Your task to perform on an android device: toggle pop-ups in chrome Image 0: 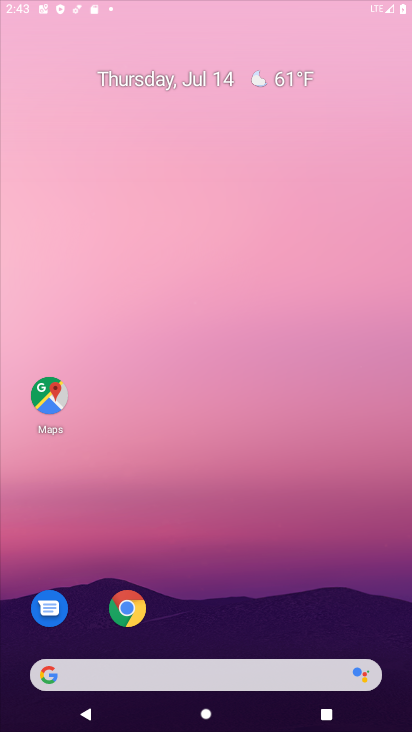
Step 0: click (266, 320)
Your task to perform on an android device: toggle pop-ups in chrome Image 1: 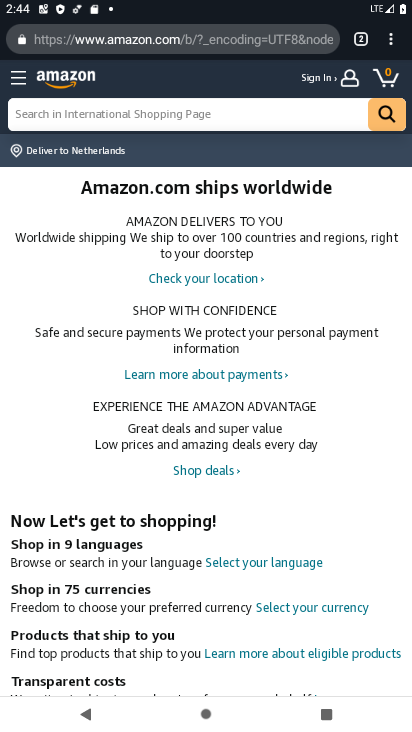
Step 1: press home button
Your task to perform on an android device: toggle pop-ups in chrome Image 2: 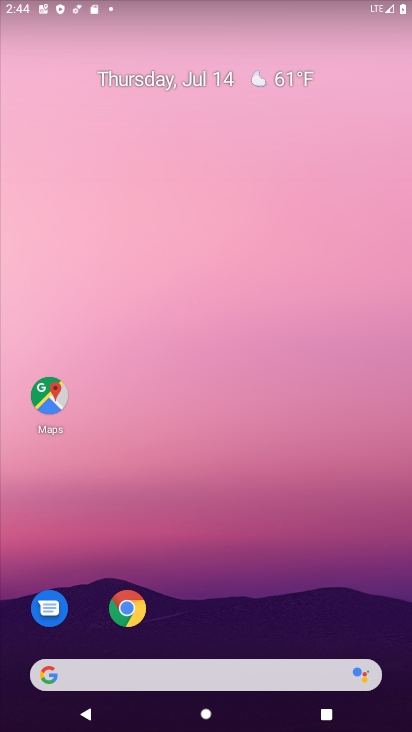
Step 2: drag from (164, 649) to (160, 181)
Your task to perform on an android device: toggle pop-ups in chrome Image 3: 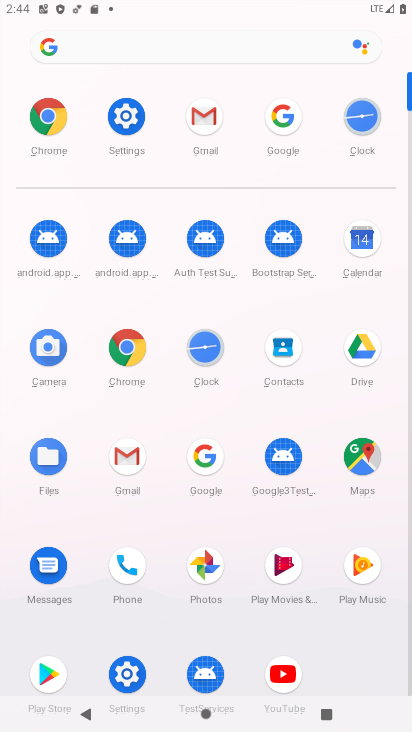
Step 3: click (127, 348)
Your task to perform on an android device: toggle pop-ups in chrome Image 4: 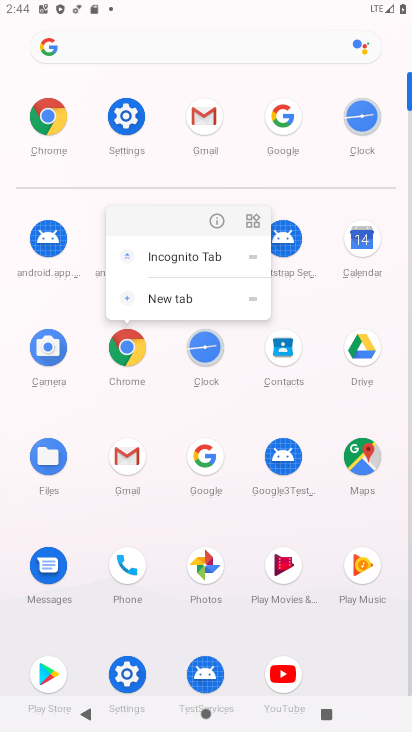
Step 4: click (127, 348)
Your task to perform on an android device: toggle pop-ups in chrome Image 5: 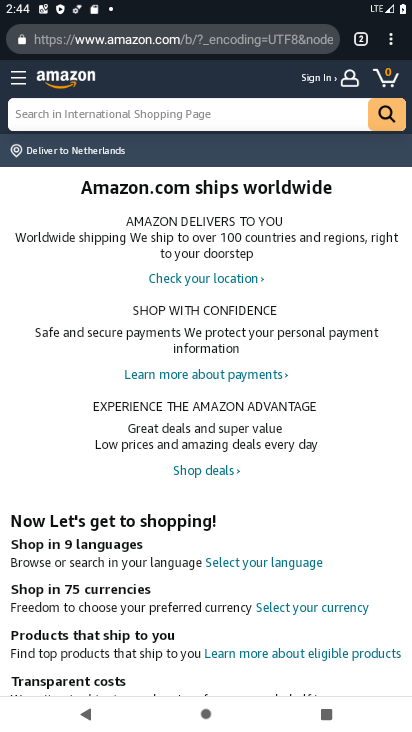
Step 5: click (388, 47)
Your task to perform on an android device: toggle pop-ups in chrome Image 6: 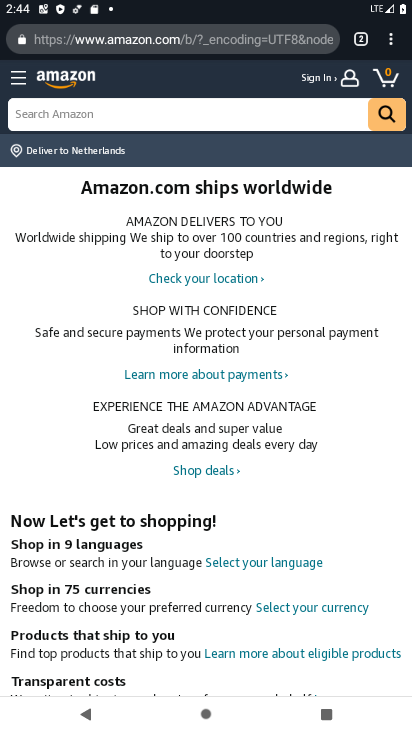
Step 6: click (388, 43)
Your task to perform on an android device: toggle pop-ups in chrome Image 7: 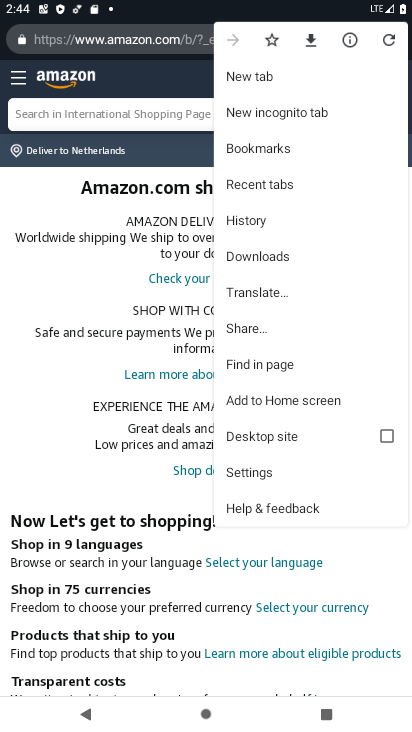
Step 7: click (258, 468)
Your task to perform on an android device: toggle pop-ups in chrome Image 8: 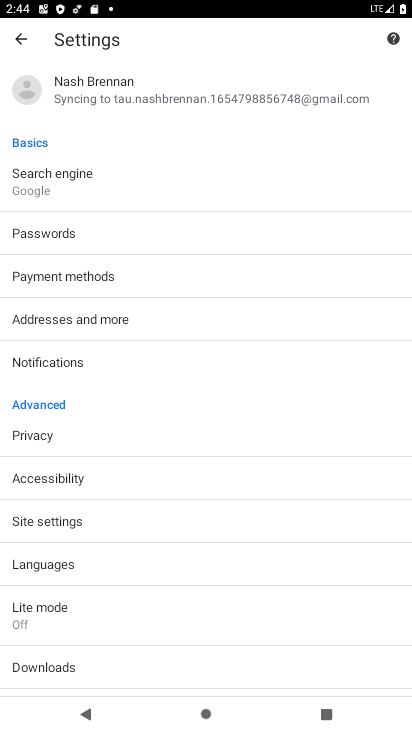
Step 8: drag from (83, 638) to (99, 244)
Your task to perform on an android device: toggle pop-ups in chrome Image 9: 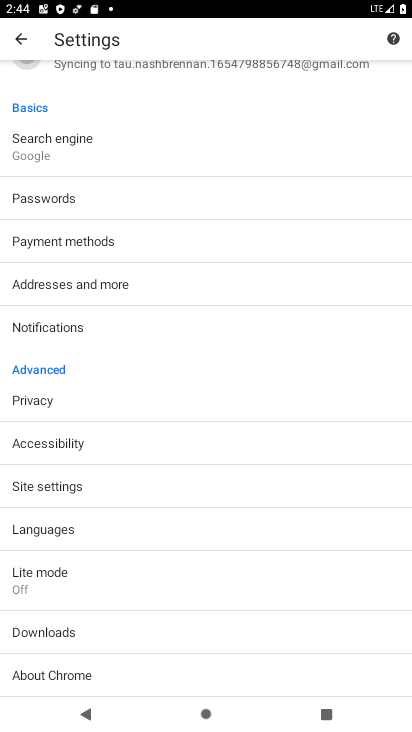
Step 9: click (36, 478)
Your task to perform on an android device: toggle pop-ups in chrome Image 10: 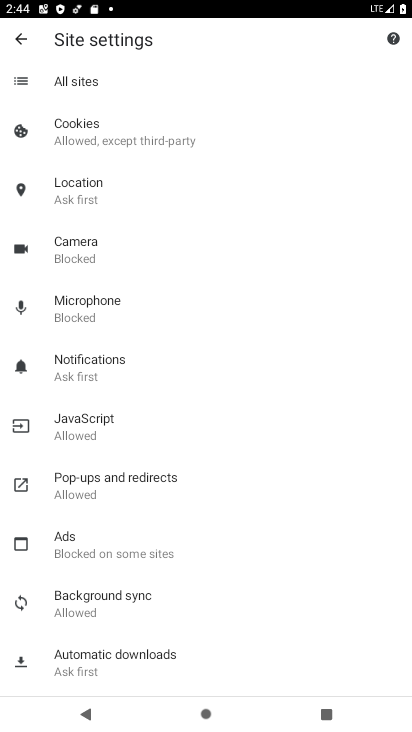
Step 10: click (121, 490)
Your task to perform on an android device: toggle pop-ups in chrome Image 11: 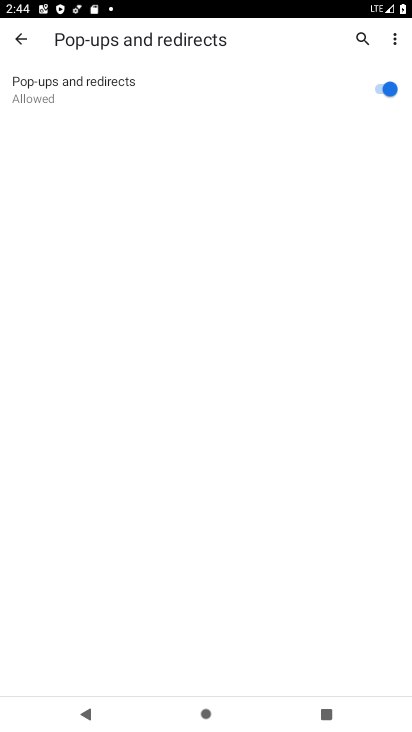
Step 11: click (380, 84)
Your task to perform on an android device: toggle pop-ups in chrome Image 12: 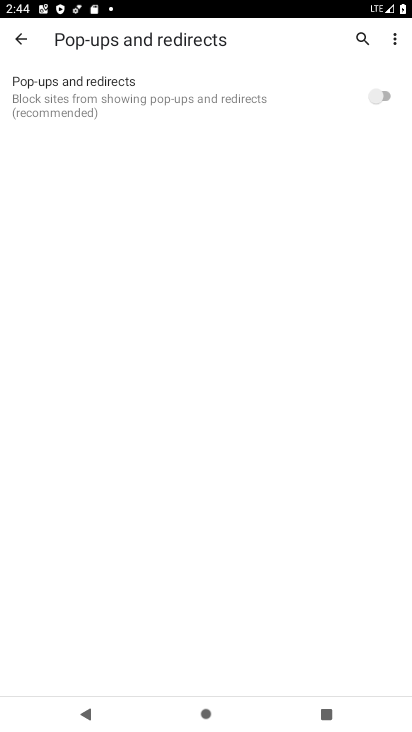
Step 12: task complete